Your task to perform on an android device: delete a single message in the gmail app Image 0: 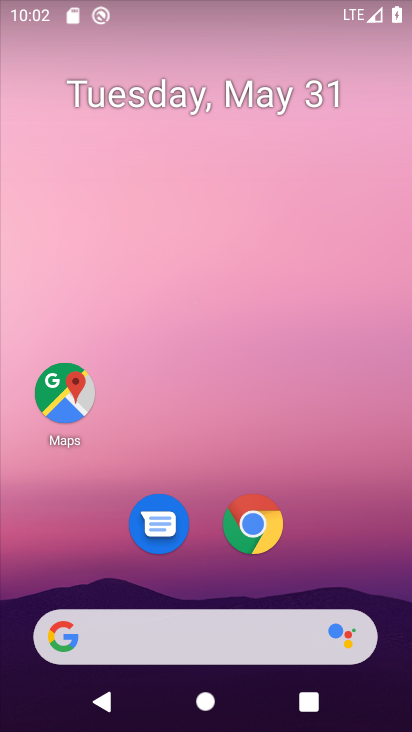
Step 0: drag from (278, 460) to (254, 2)
Your task to perform on an android device: delete a single message in the gmail app Image 1: 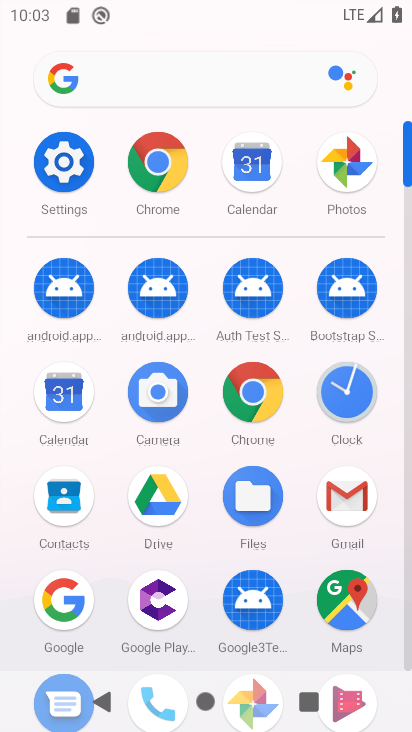
Step 1: click (352, 485)
Your task to perform on an android device: delete a single message in the gmail app Image 2: 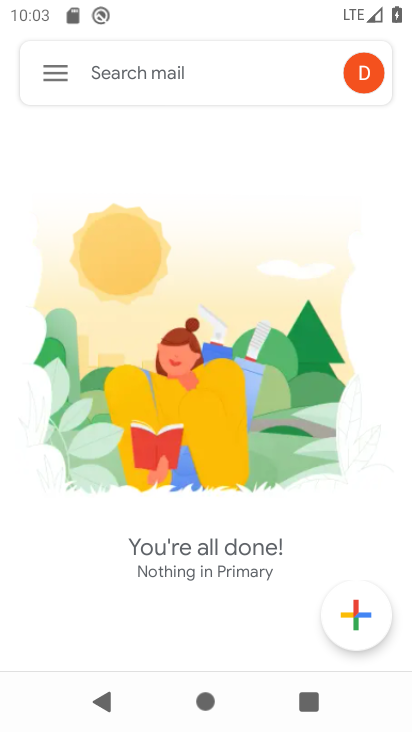
Step 2: click (60, 78)
Your task to perform on an android device: delete a single message in the gmail app Image 3: 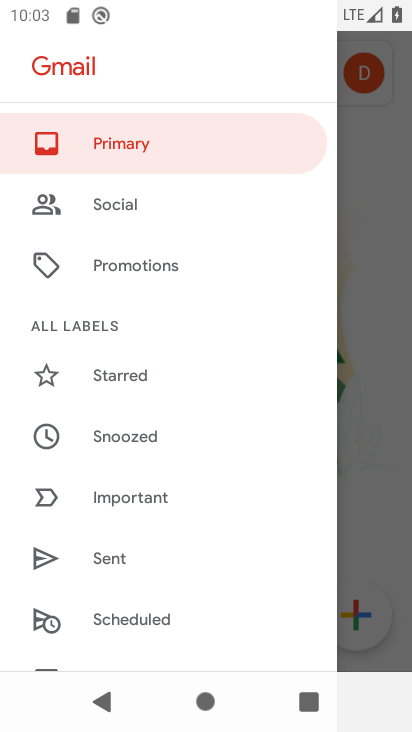
Step 3: drag from (180, 537) to (268, 147)
Your task to perform on an android device: delete a single message in the gmail app Image 4: 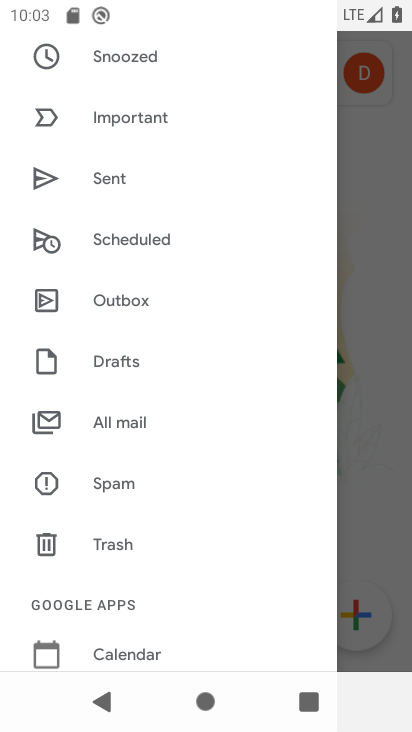
Step 4: click (156, 410)
Your task to perform on an android device: delete a single message in the gmail app Image 5: 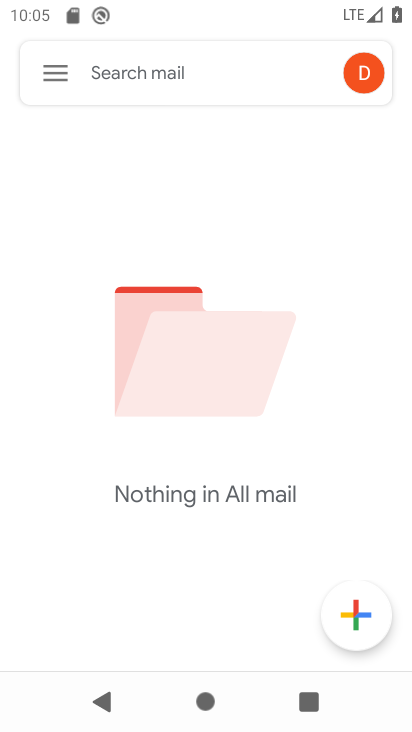
Step 5: task complete